Your task to perform on an android device: turn on airplane mode Image 0: 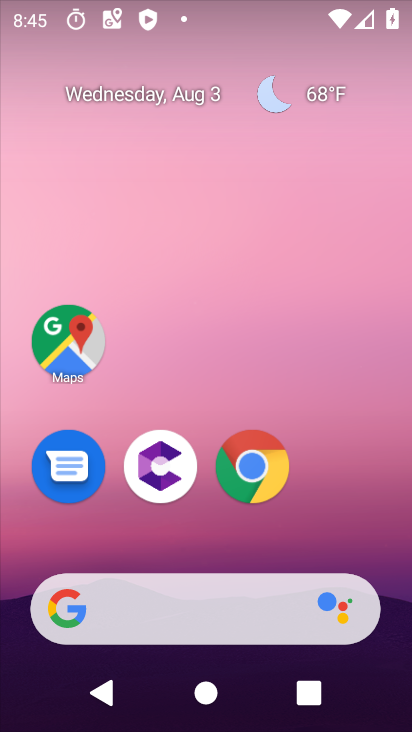
Step 0: drag from (312, 484) to (322, 6)
Your task to perform on an android device: turn on airplane mode Image 1: 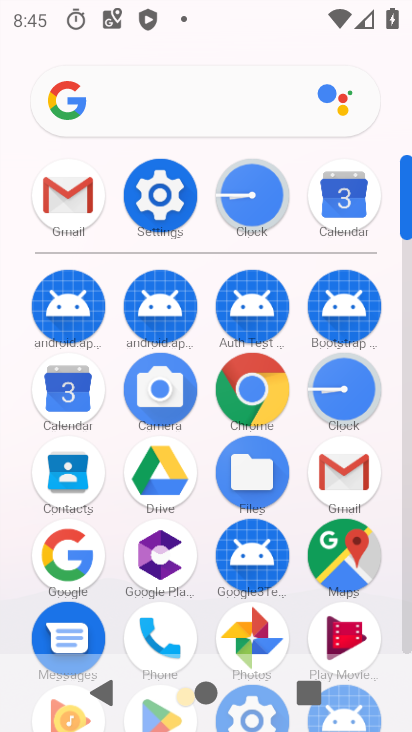
Step 1: click (145, 199)
Your task to perform on an android device: turn on airplane mode Image 2: 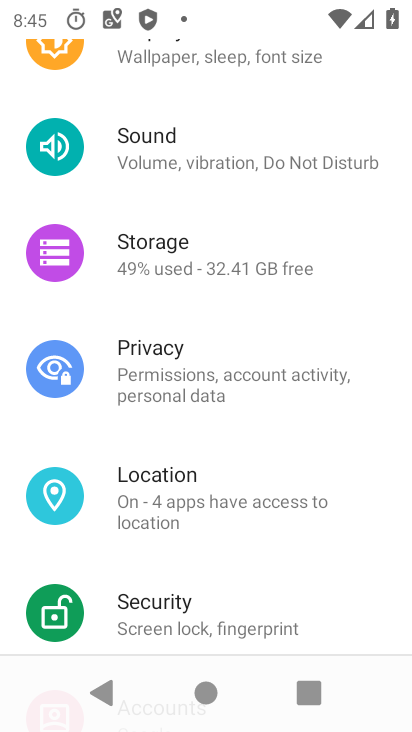
Step 2: drag from (278, 117) to (279, 469)
Your task to perform on an android device: turn on airplane mode Image 3: 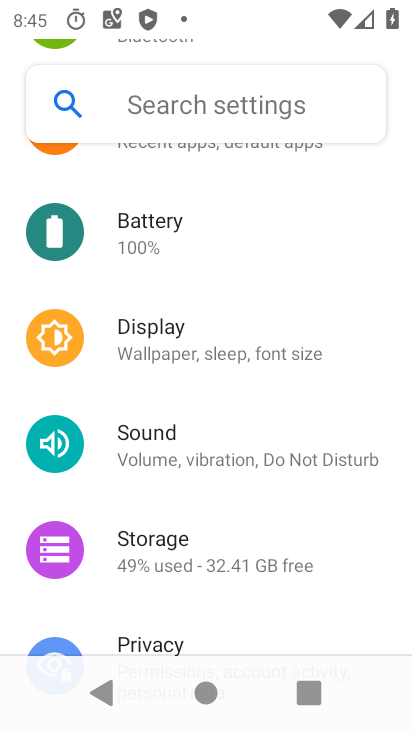
Step 3: drag from (297, 223) to (306, 600)
Your task to perform on an android device: turn on airplane mode Image 4: 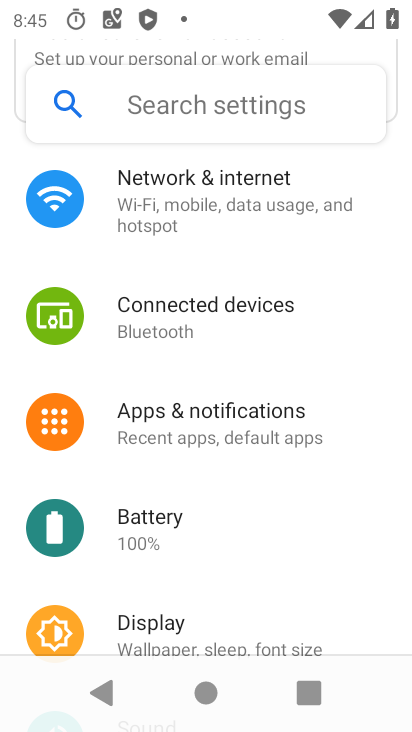
Step 4: drag from (266, 241) to (270, 578)
Your task to perform on an android device: turn on airplane mode Image 5: 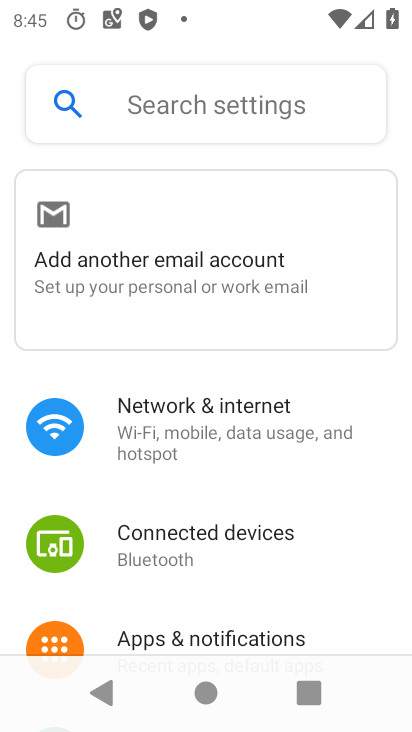
Step 5: click (240, 410)
Your task to perform on an android device: turn on airplane mode Image 6: 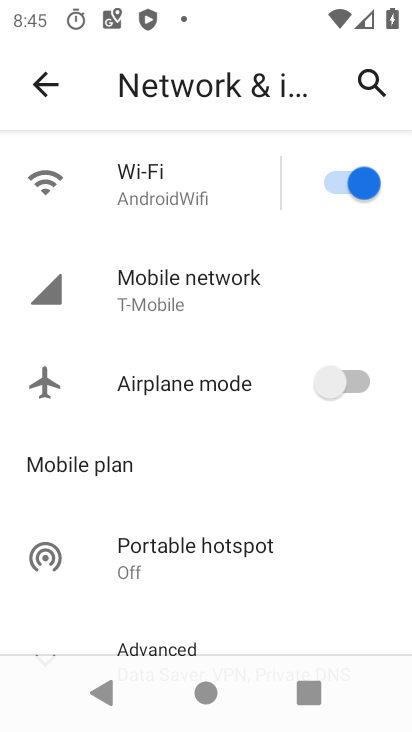
Step 6: click (313, 391)
Your task to perform on an android device: turn on airplane mode Image 7: 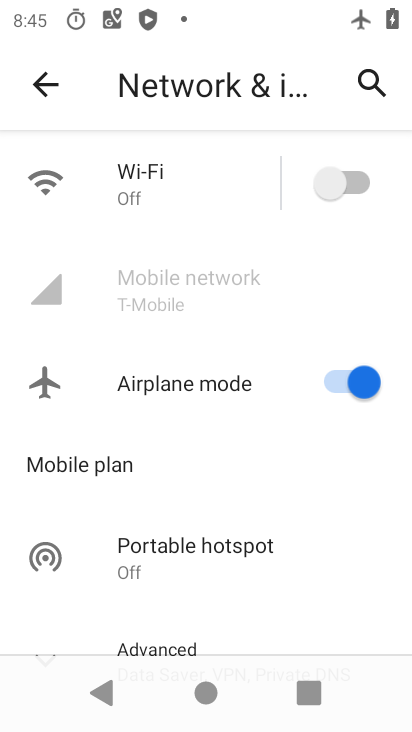
Step 7: task complete